Your task to perform on an android device: View the shopping cart on target.com. Image 0: 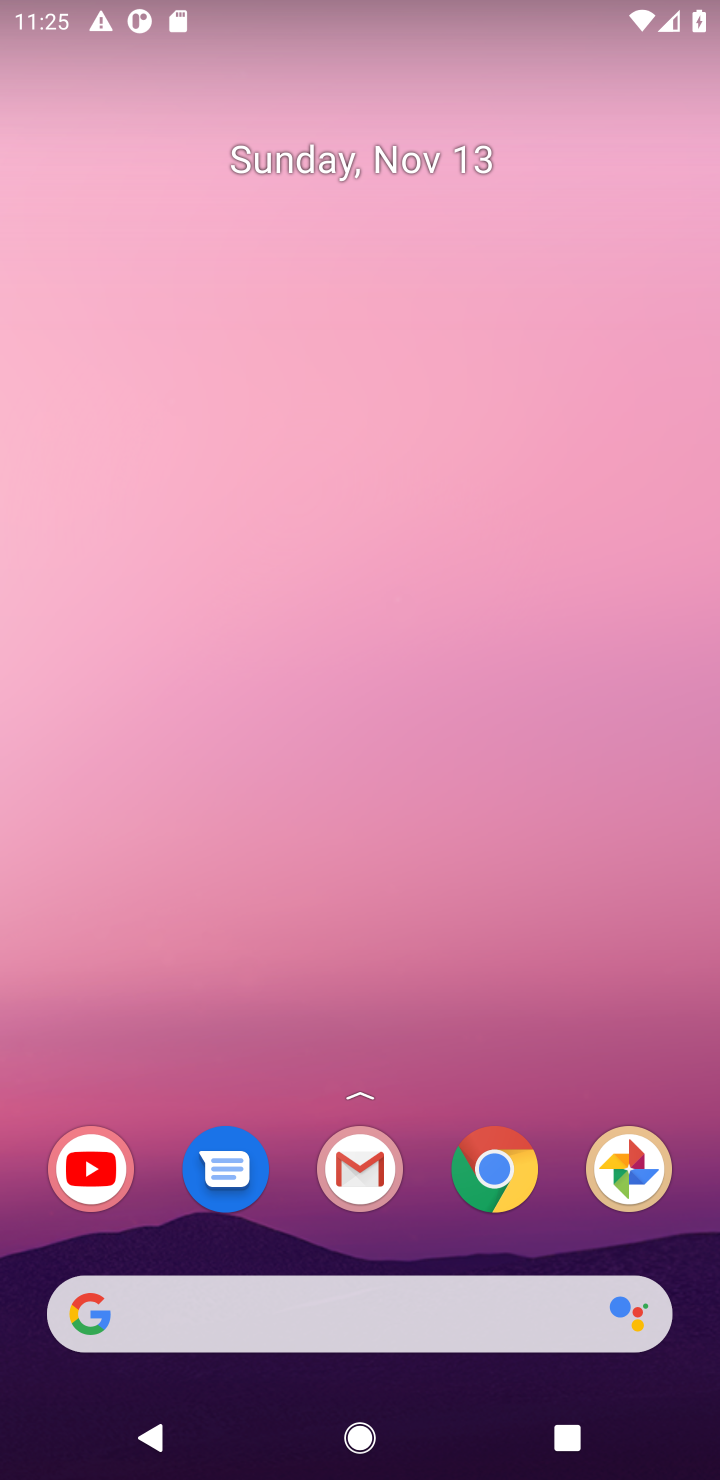
Step 0: press home button
Your task to perform on an android device: View the shopping cart on target.com. Image 1: 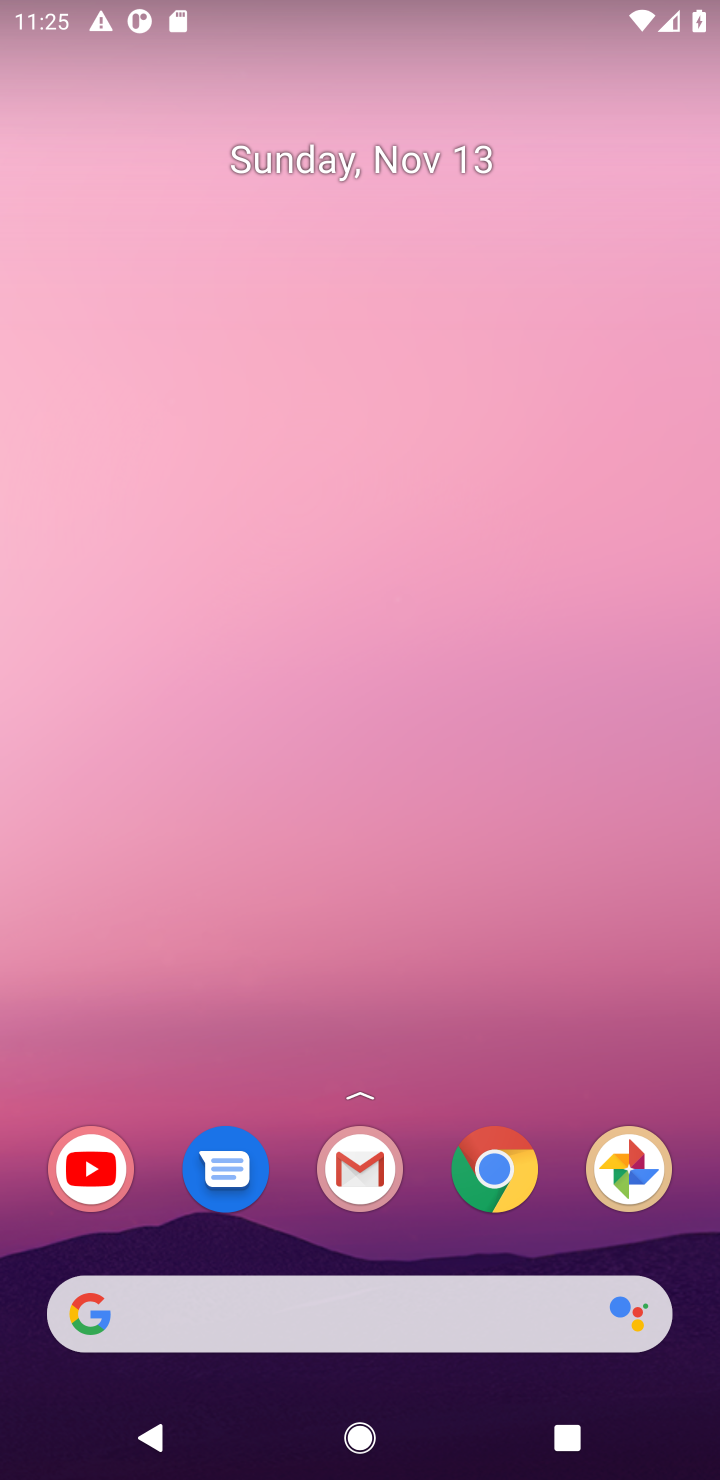
Step 1: drag from (419, 1265) to (248, 24)
Your task to perform on an android device: View the shopping cart on target.com. Image 2: 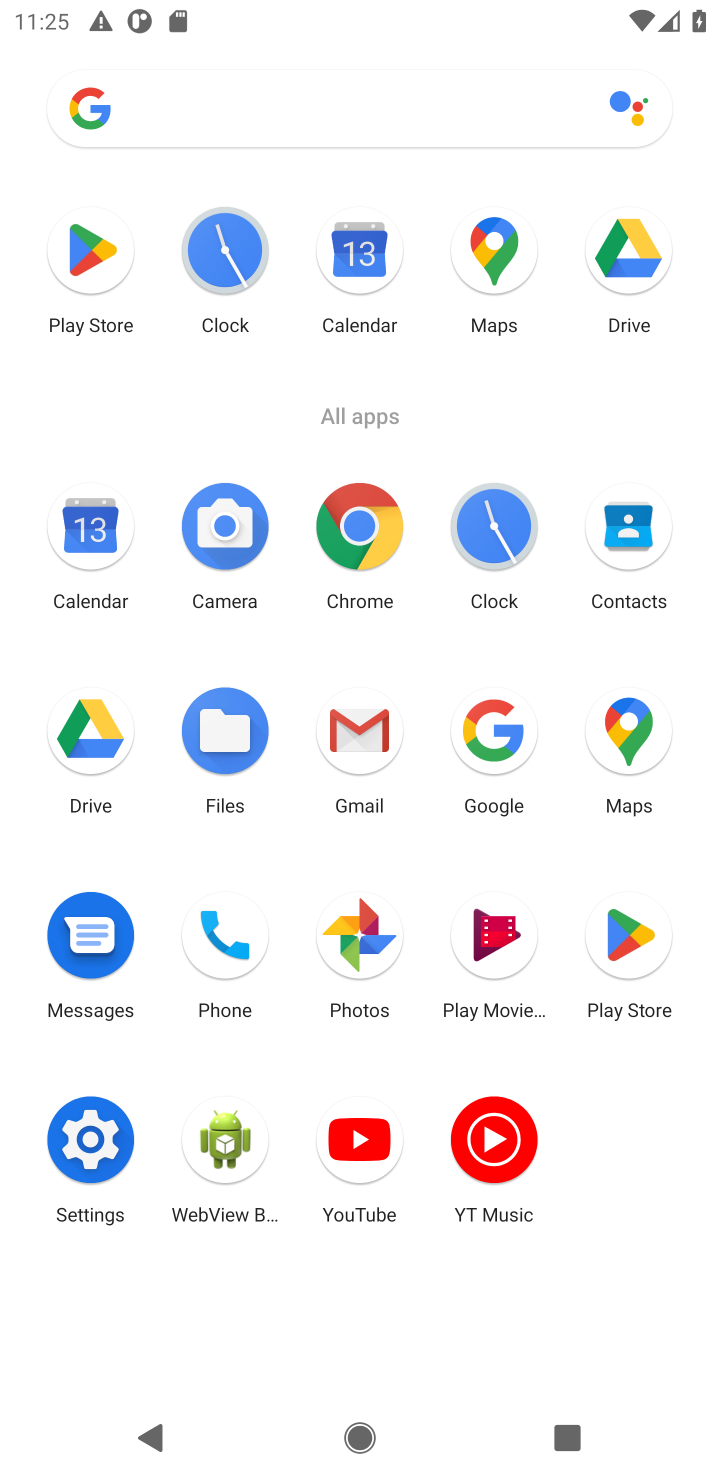
Step 2: click (357, 522)
Your task to perform on an android device: View the shopping cart on target.com. Image 3: 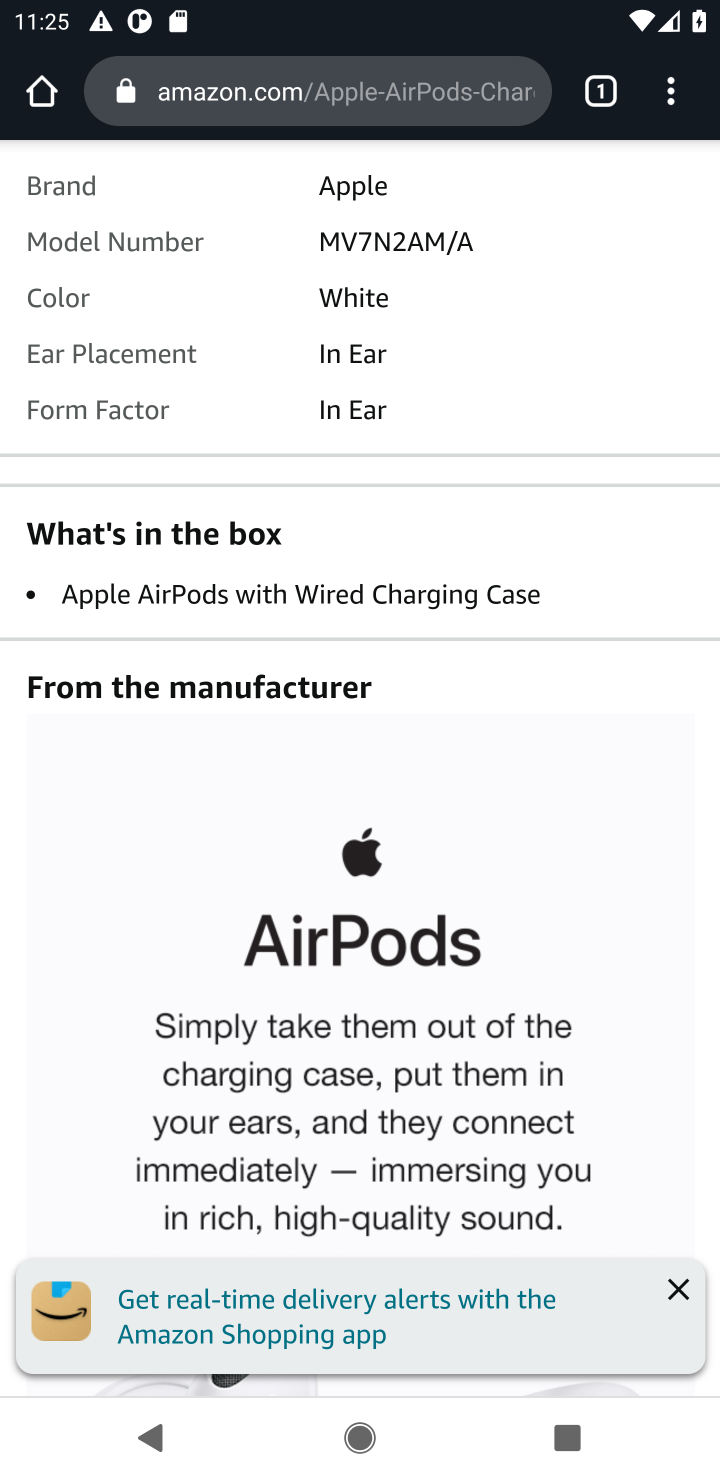
Step 3: click (265, 99)
Your task to perform on an android device: View the shopping cart on target.com. Image 4: 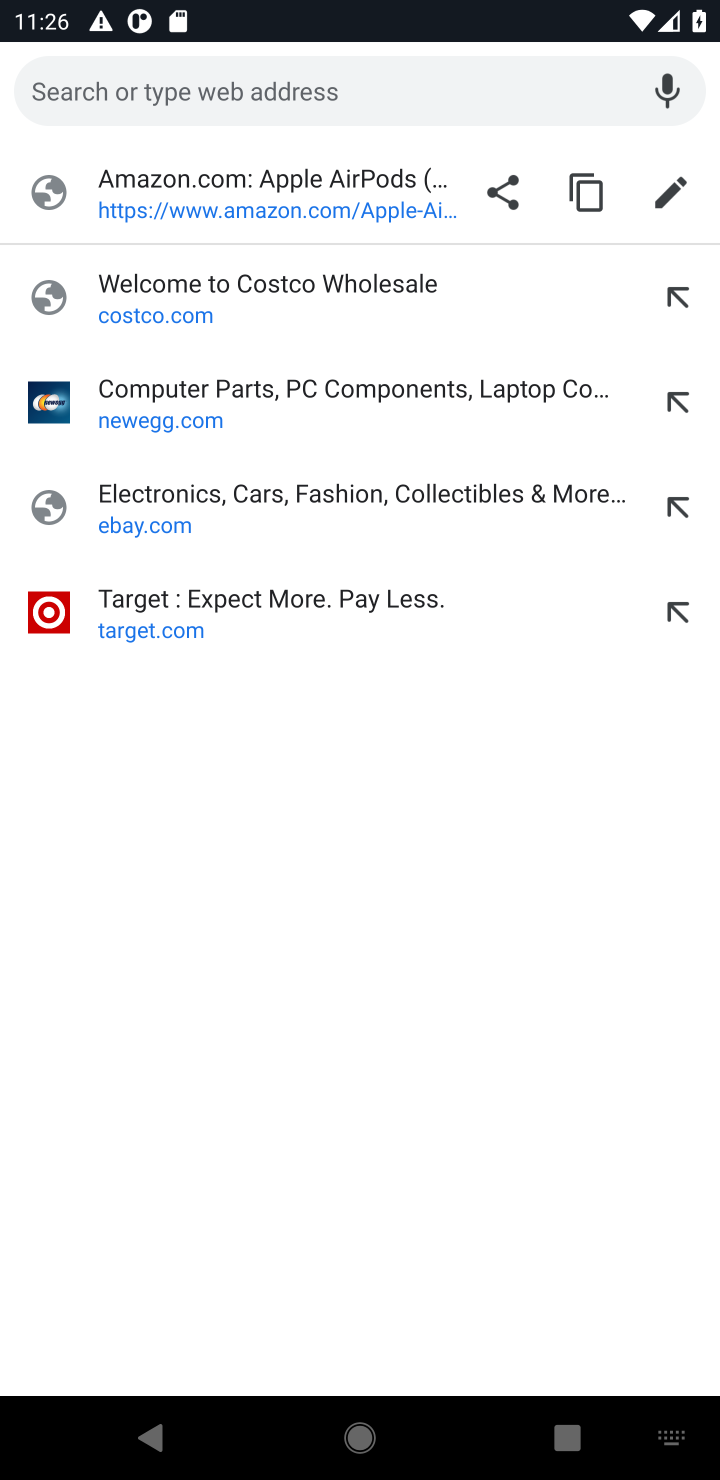
Step 4: type "target.com"
Your task to perform on an android device: View the shopping cart on target.com. Image 5: 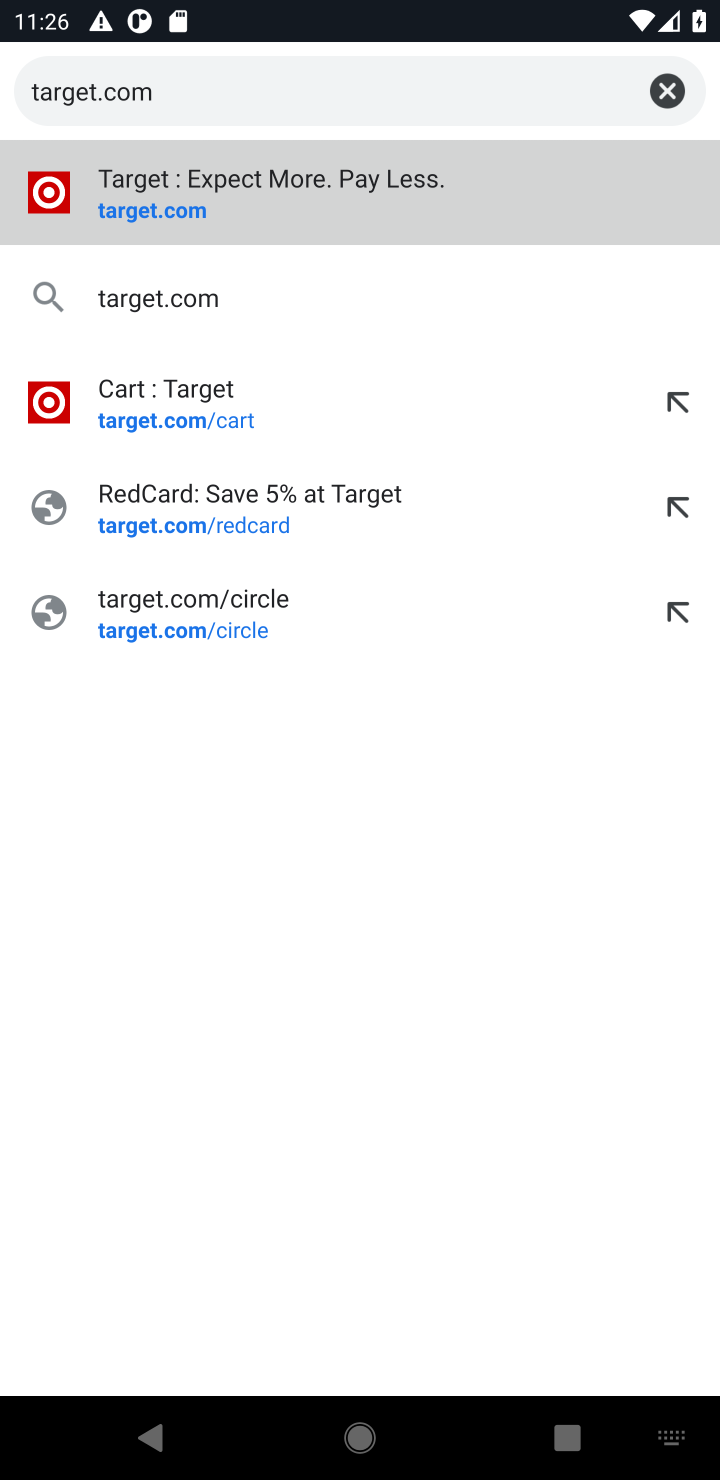
Step 5: press enter
Your task to perform on an android device: View the shopping cart on target.com. Image 6: 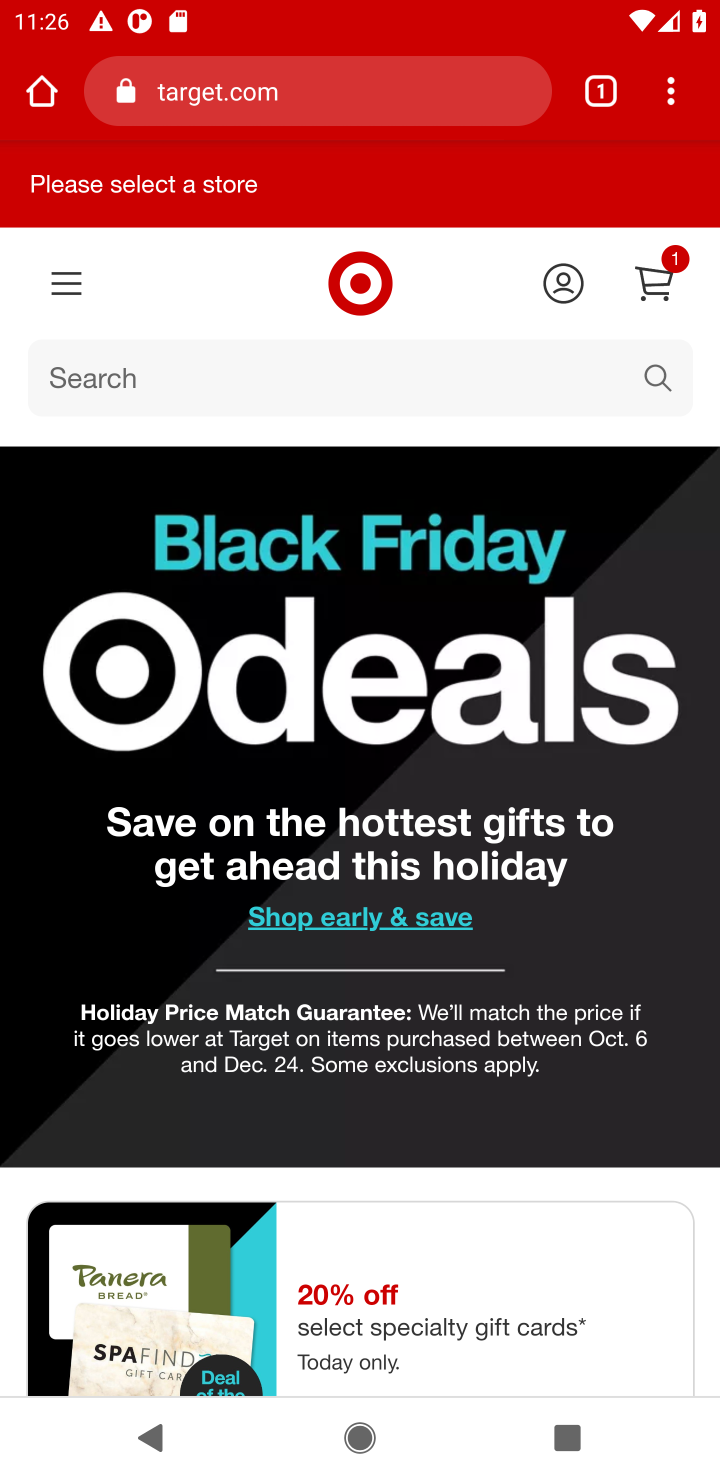
Step 6: click (673, 271)
Your task to perform on an android device: View the shopping cart on target.com. Image 7: 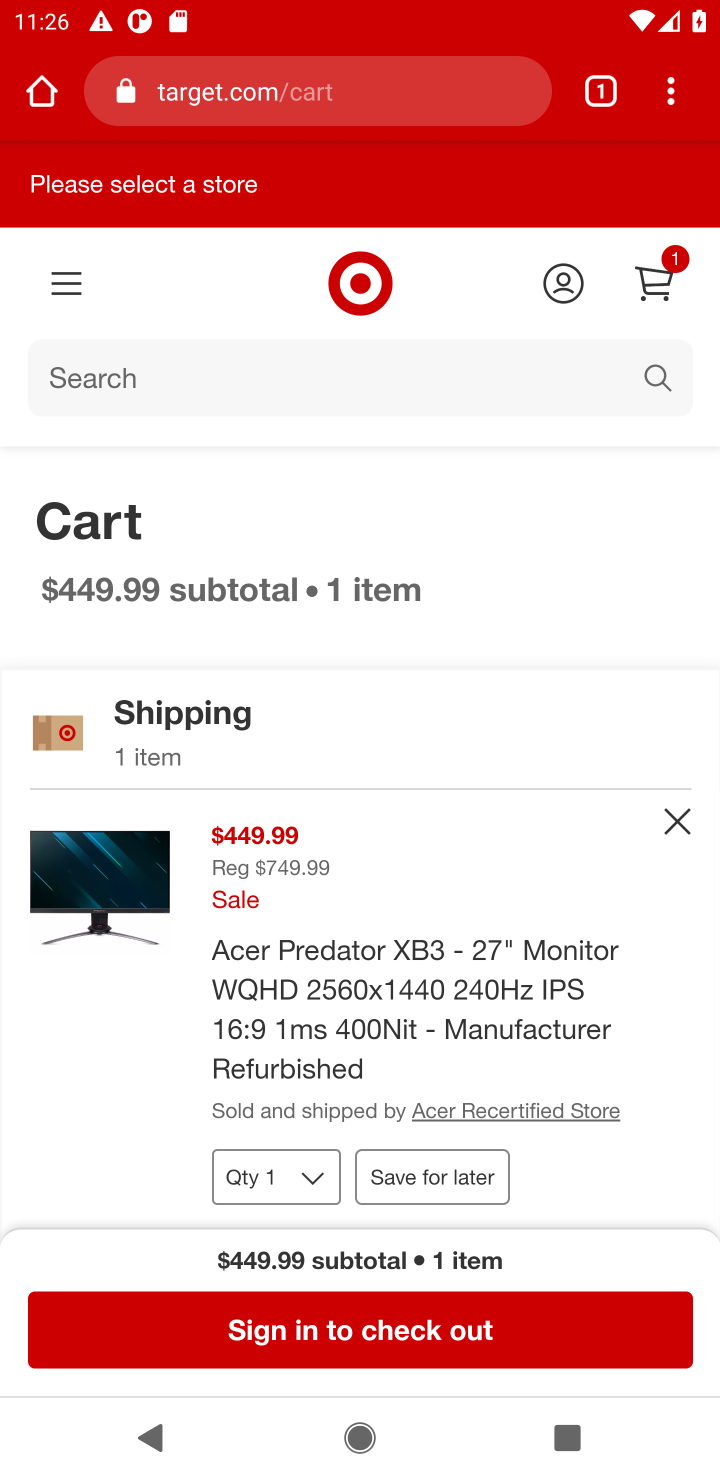
Step 7: task complete